Your task to perform on an android device: Open battery settings Image 0: 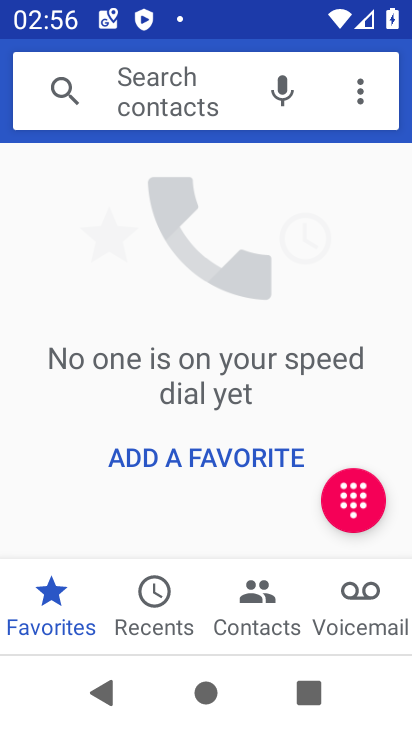
Step 0: press home button
Your task to perform on an android device: Open battery settings Image 1: 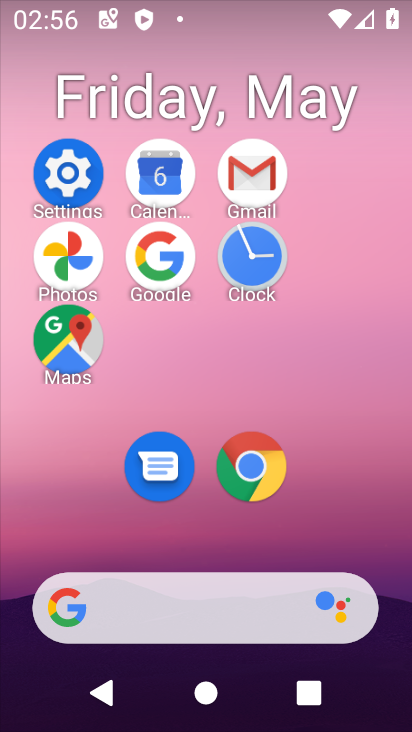
Step 1: click (66, 172)
Your task to perform on an android device: Open battery settings Image 2: 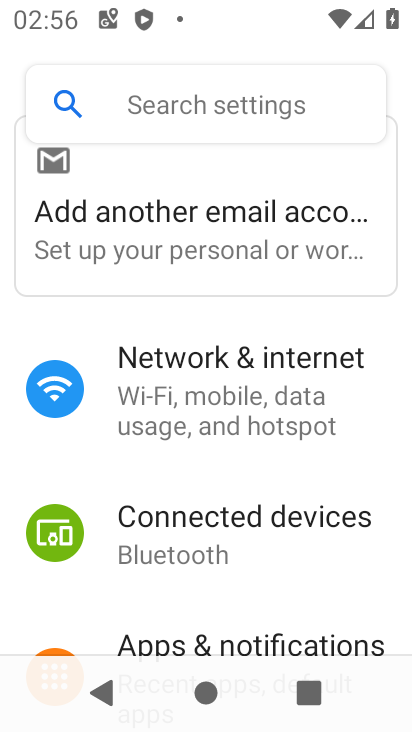
Step 2: drag from (284, 600) to (263, 150)
Your task to perform on an android device: Open battery settings Image 3: 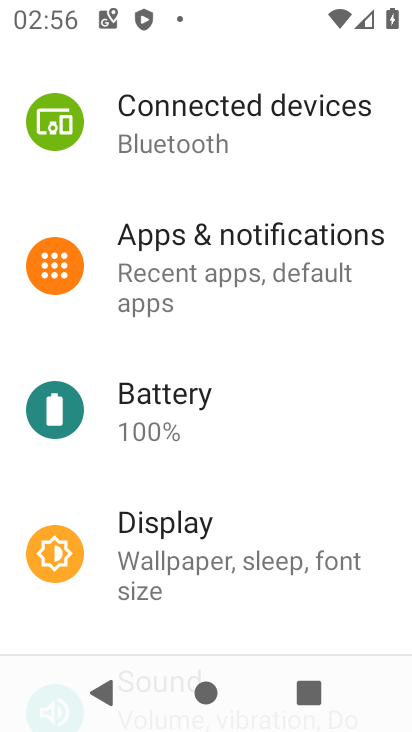
Step 3: click (302, 433)
Your task to perform on an android device: Open battery settings Image 4: 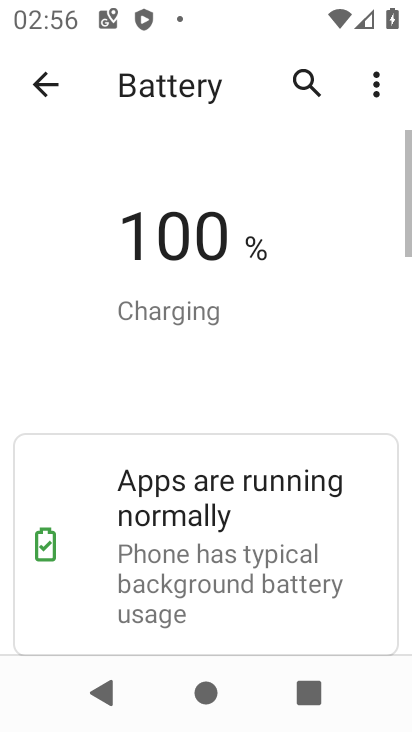
Step 4: task complete